Your task to perform on an android device: check google app version Image 0: 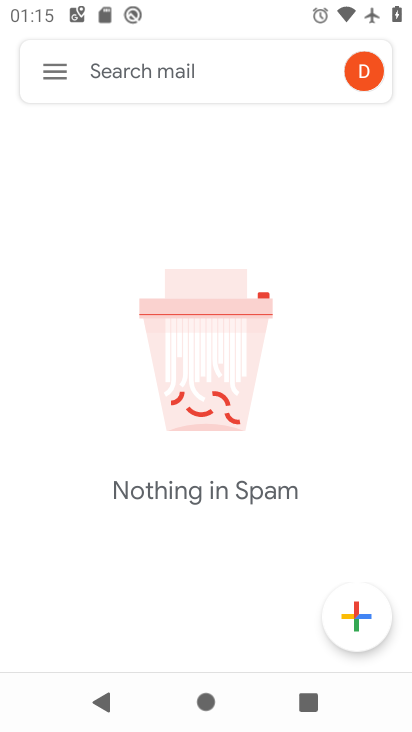
Step 0: press home button
Your task to perform on an android device: check google app version Image 1: 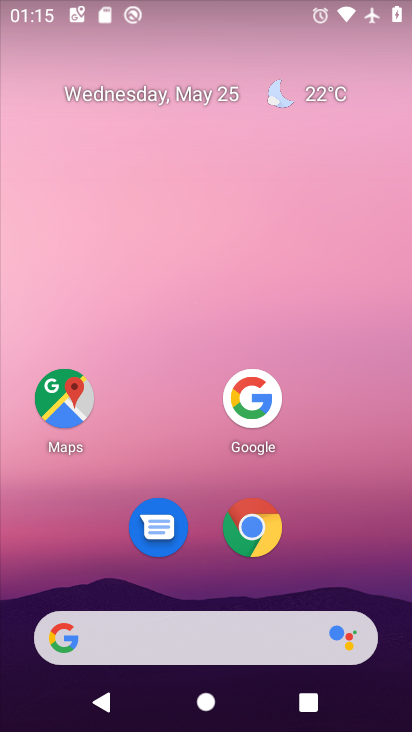
Step 1: click (263, 402)
Your task to perform on an android device: check google app version Image 2: 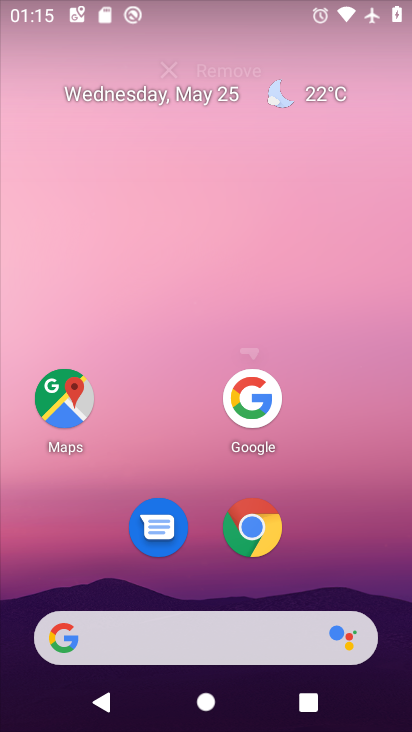
Step 2: click (193, 196)
Your task to perform on an android device: check google app version Image 3: 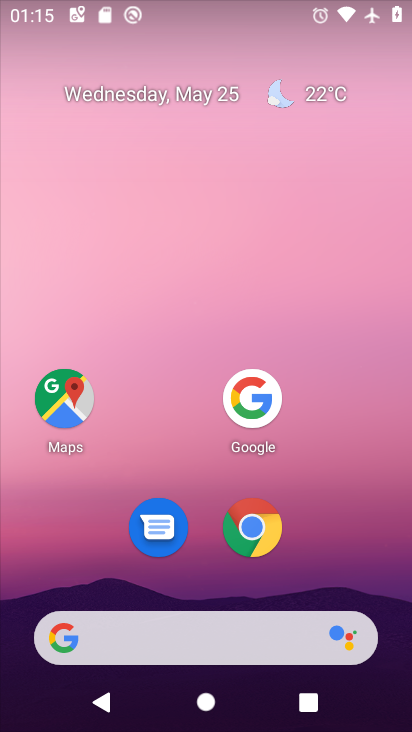
Step 3: click (262, 403)
Your task to perform on an android device: check google app version Image 4: 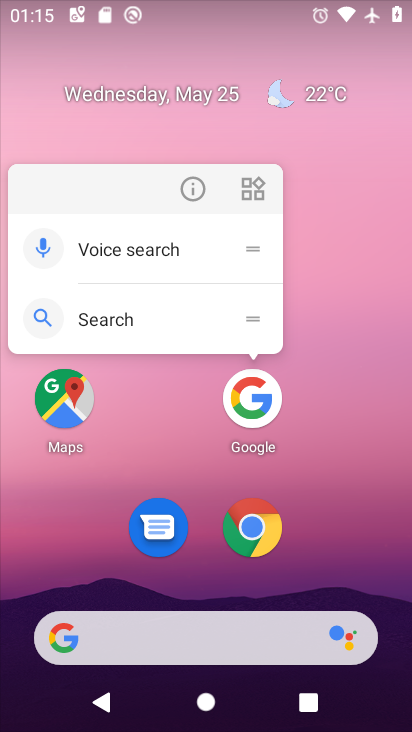
Step 4: click (200, 185)
Your task to perform on an android device: check google app version Image 5: 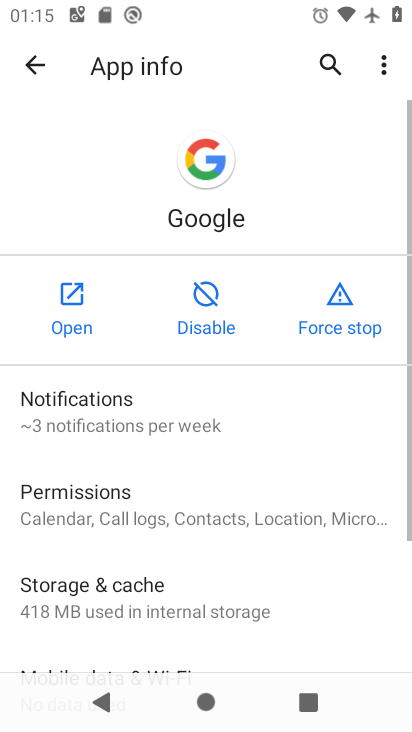
Step 5: drag from (175, 636) to (352, 17)
Your task to perform on an android device: check google app version Image 6: 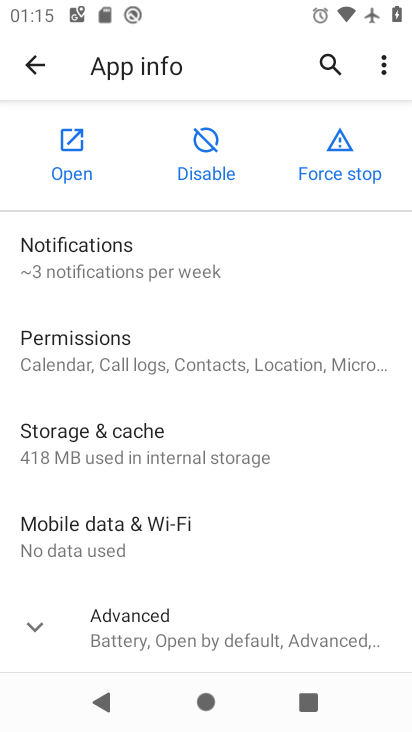
Step 6: drag from (242, 624) to (372, 56)
Your task to perform on an android device: check google app version Image 7: 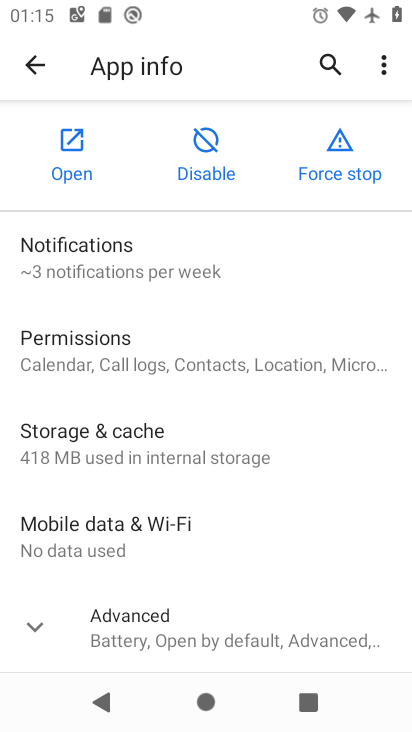
Step 7: click (111, 621)
Your task to perform on an android device: check google app version Image 8: 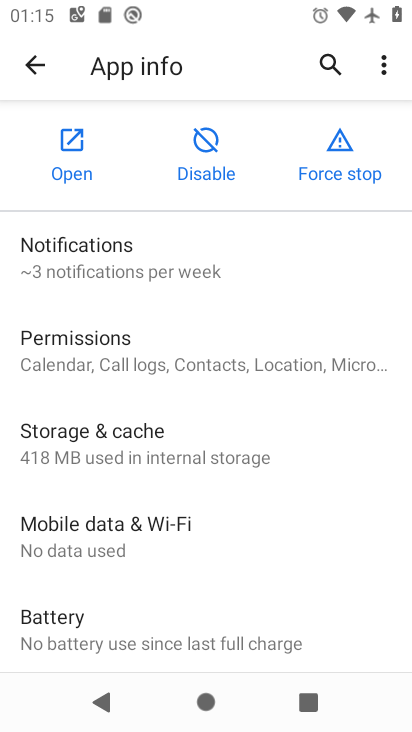
Step 8: task complete